Your task to perform on an android device: Go to Android settings Image 0: 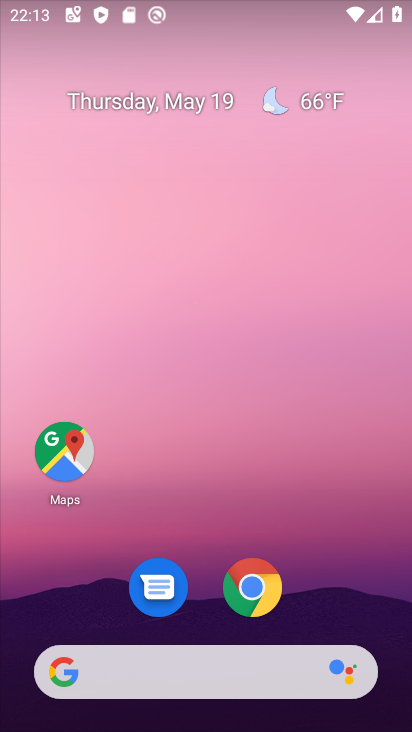
Step 0: press home button
Your task to perform on an android device: Go to Android settings Image 1: 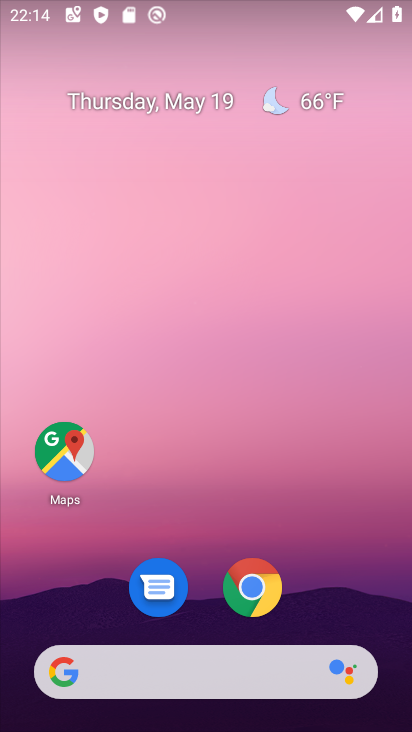
Step 1: drag from (208, 701) to (188, 175)
Your task to perform on an android device: Go to Android settings Image 2: 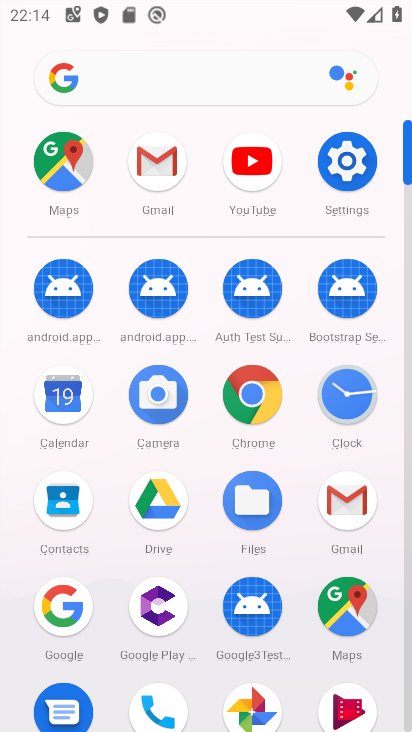
Step 2: click (331, 163)
Your task to perform on an android device: Go to Android settings Image 3: 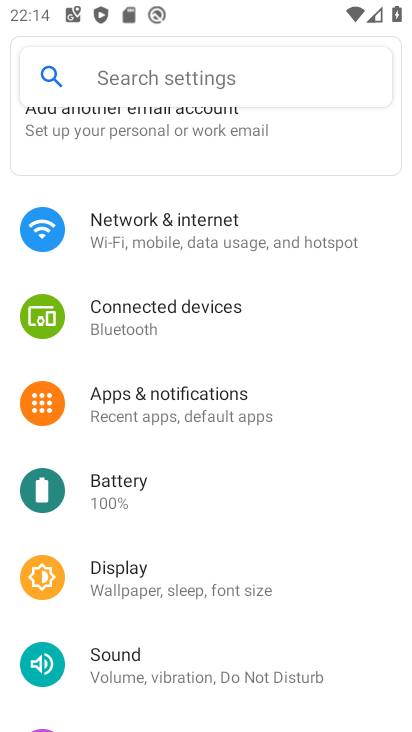
Step 3: click (120, 70)
Your task to perform on an android device: Go to Android settings Image 4: 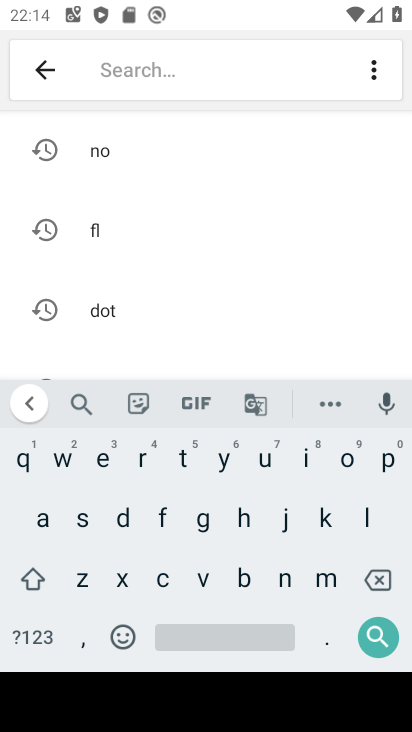
Step 4: click (48, 522)
Your task to perform on an android device: Go to Android settings Image 5: 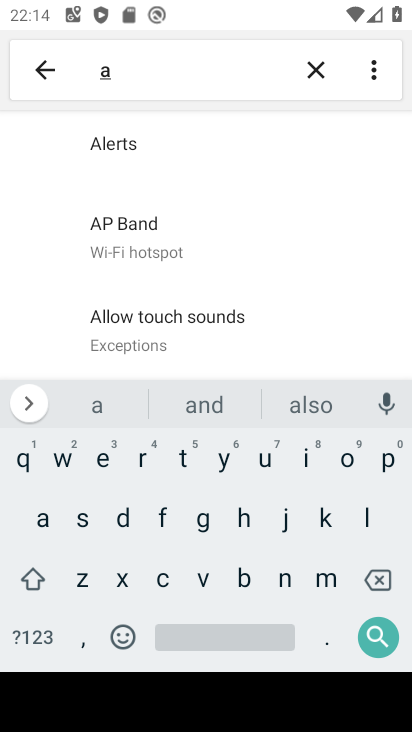
Step 5: click (276, 566)
Your task to perform on an android device: Go to Android settings Image 6: 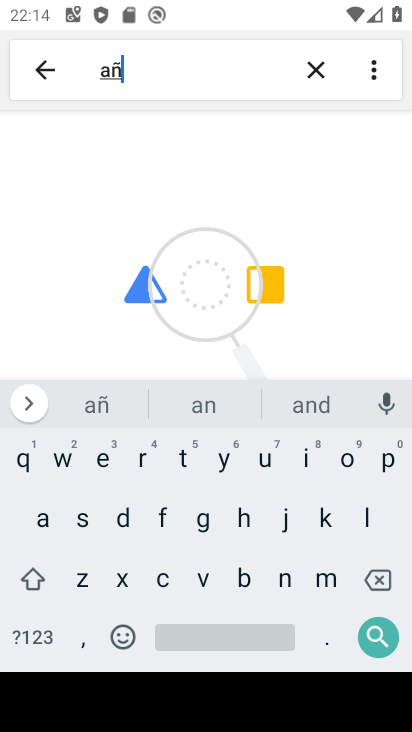
Step 6: click (386, 568)
Your task to perform on an android device: Go to Android settings Image 7: 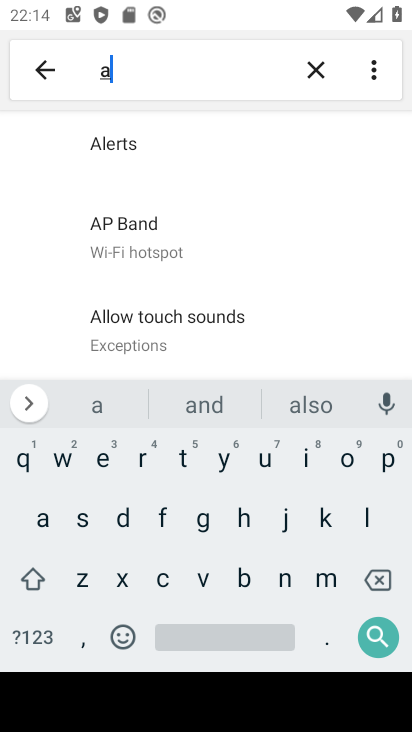
Step 7: click (288, 578)
Your task to perform on an android device: Go to Android settings Image 8: 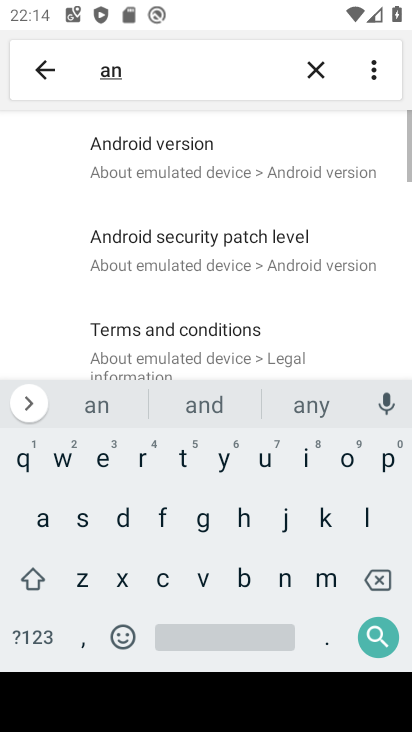
Step 8: click (181, 137)
Your task to perform on an android device: Go to Android settings Image 9: 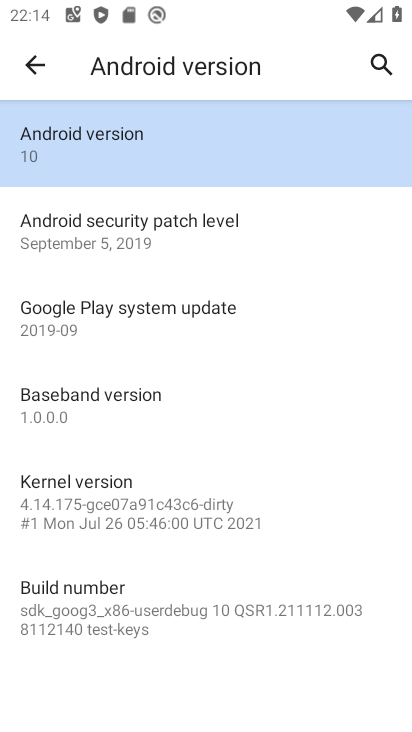
Step 9: click (175, 135)
Your task to perform on an android device: Go to Android settings Image 10: 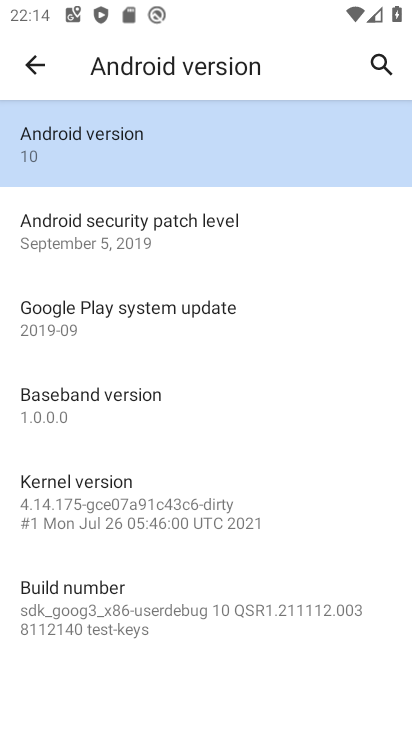
Step 10: task complete